Your task to perform on an android device: show emergency info Image 0: 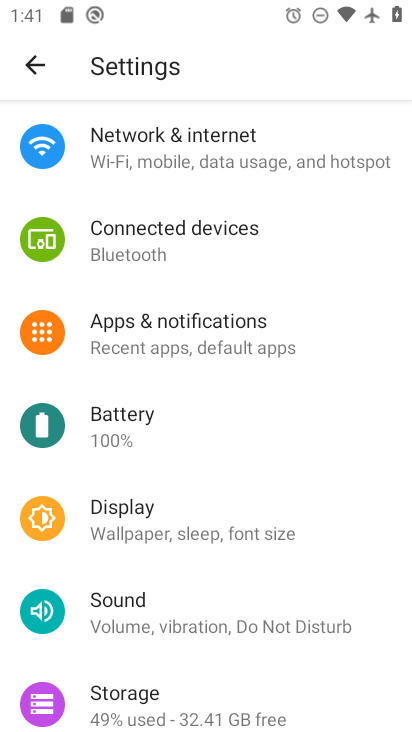
Step 0: drag from (228, 609) to (247, 105)
Your task to perform on an android device: show emergency info Image 1: 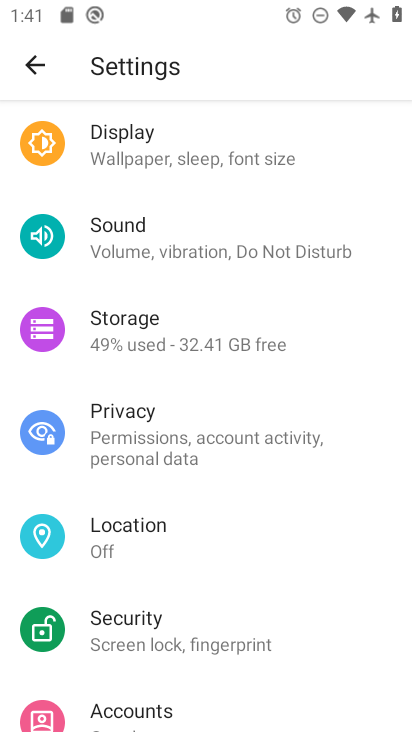
Step 1: drag from (256, 508) to (251, 151)
Your task to perform on an android device: show emergency info Image 2: 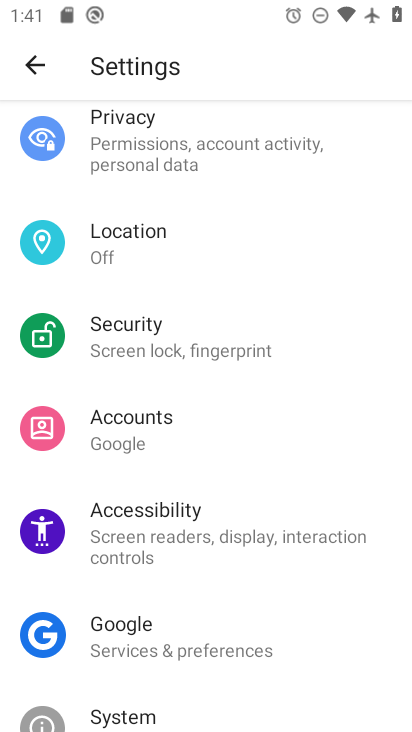
Step 2: drag from (265, 691) to (201, 140)
Your task to perform on an android device: show emergency info Image 3: 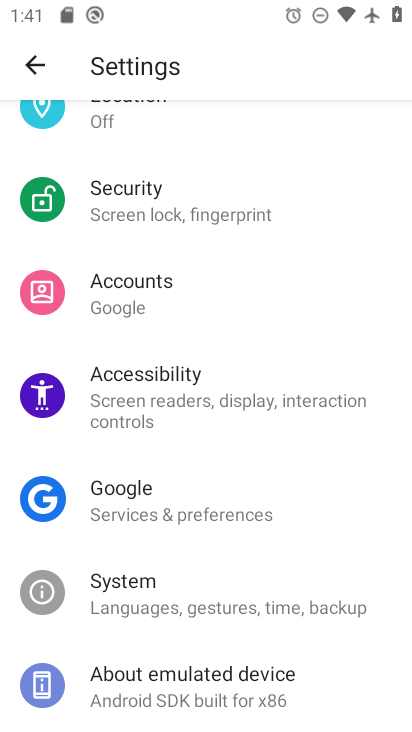
Step 3: click (215, 693)
Your task to perform on an android device: show emergency info Image 4: 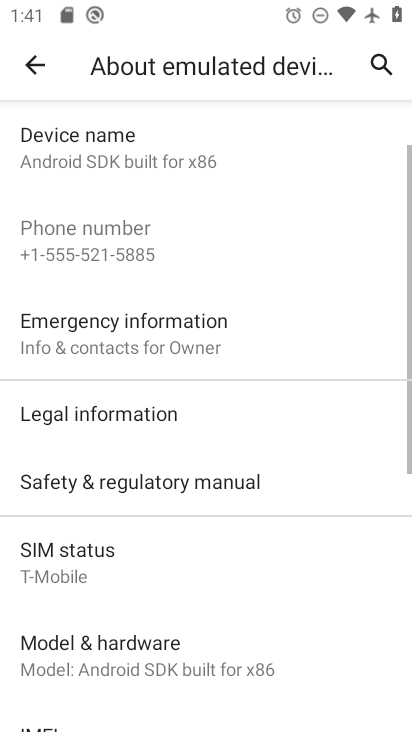
Step 4: click (161, 322)
Your task to perform on an android device: show emergency info Image 5: 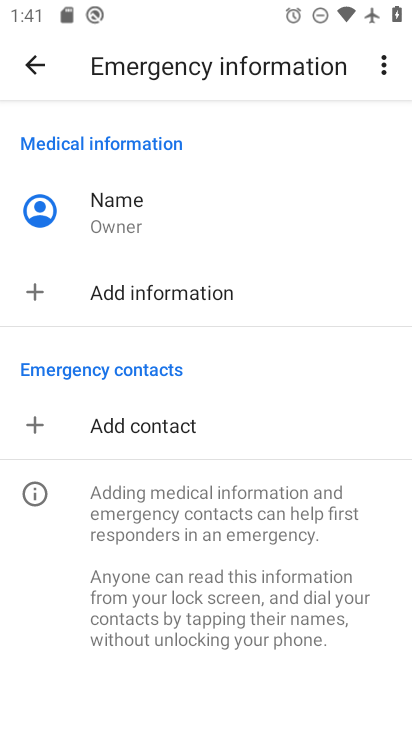
Step 5: task complete